Your task to perform on an android device: Go to ESPN.com Image 0: 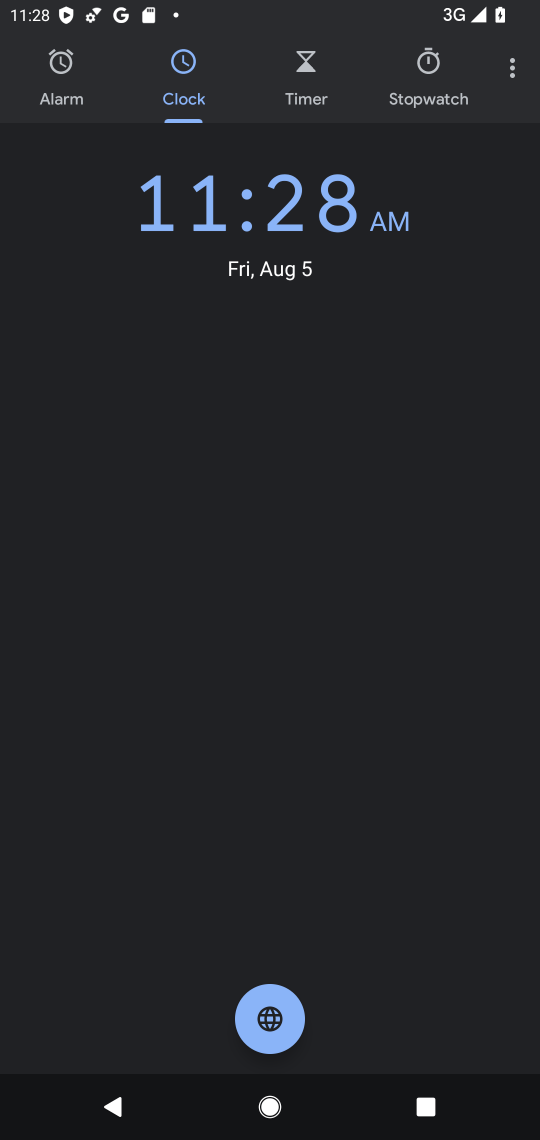
Step 0: press home button
Your task to perform on an android device: Go to ESPN.com Image 1: 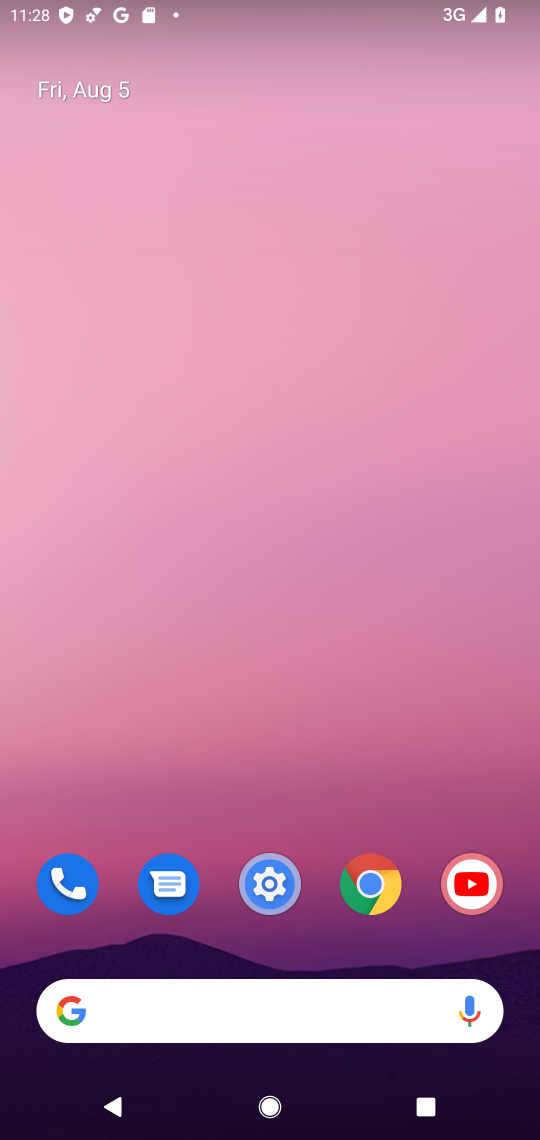
Step 1: click (356, 886)
Your task to perform on an android device: Go to ESPN.com Image 2: 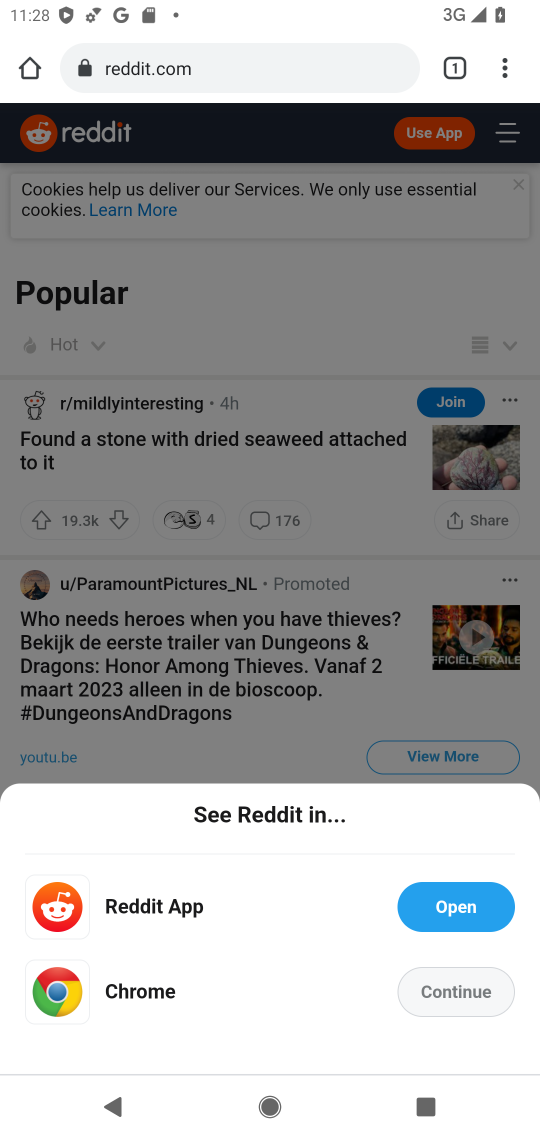
Step 2: click (214, 70)
Your task to perform on an android device: Go to ESPN.com Image 3: 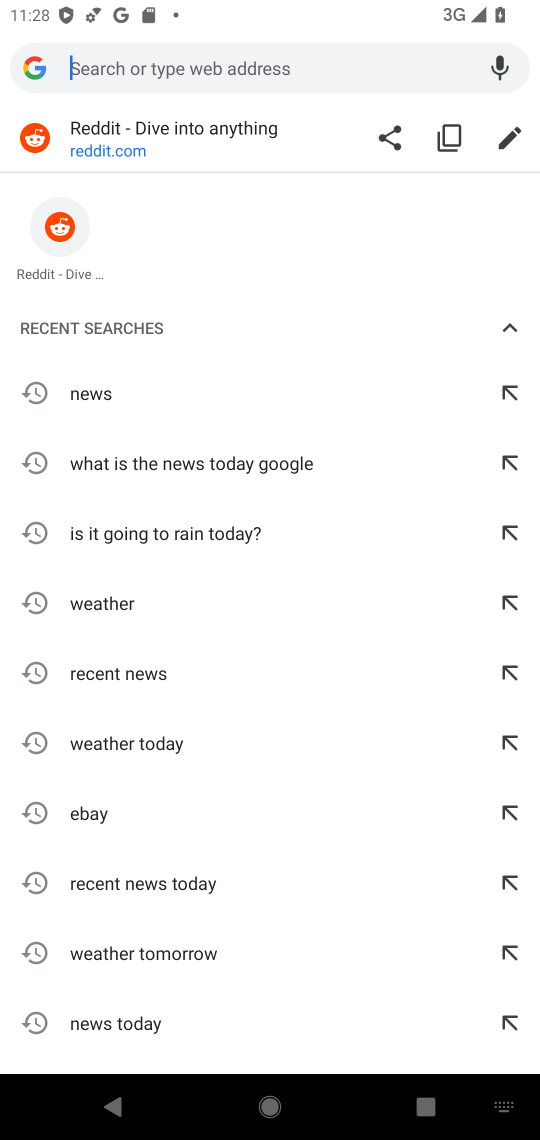
Step 3: type "espn.com"
Your task to perform on an android device: Go to ESPN.com Image 4: 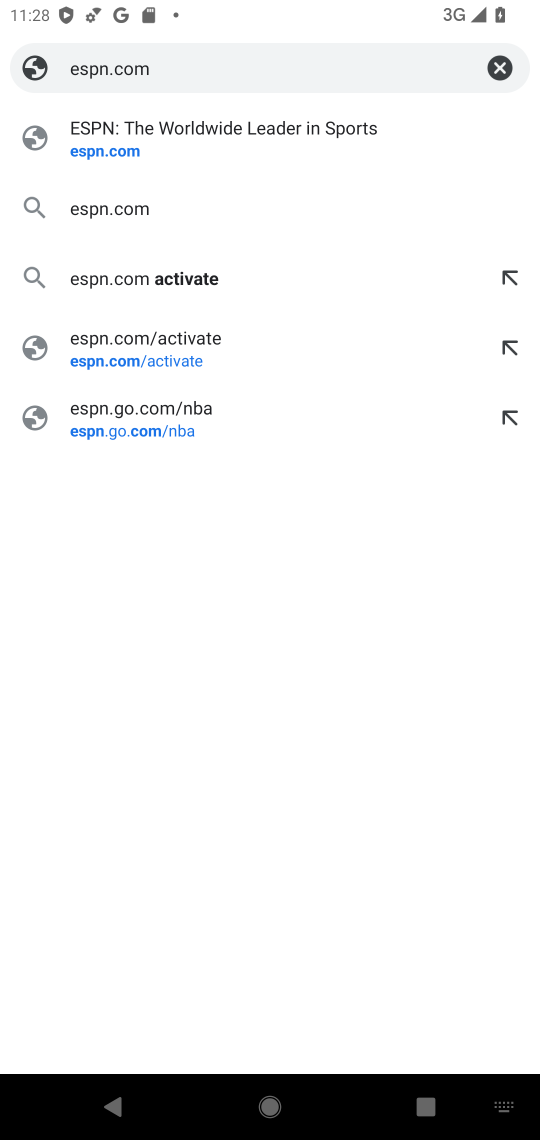
Step 4: click (183, 139)
Your task to perform on an android device: Go to ESPN.com Image 5: 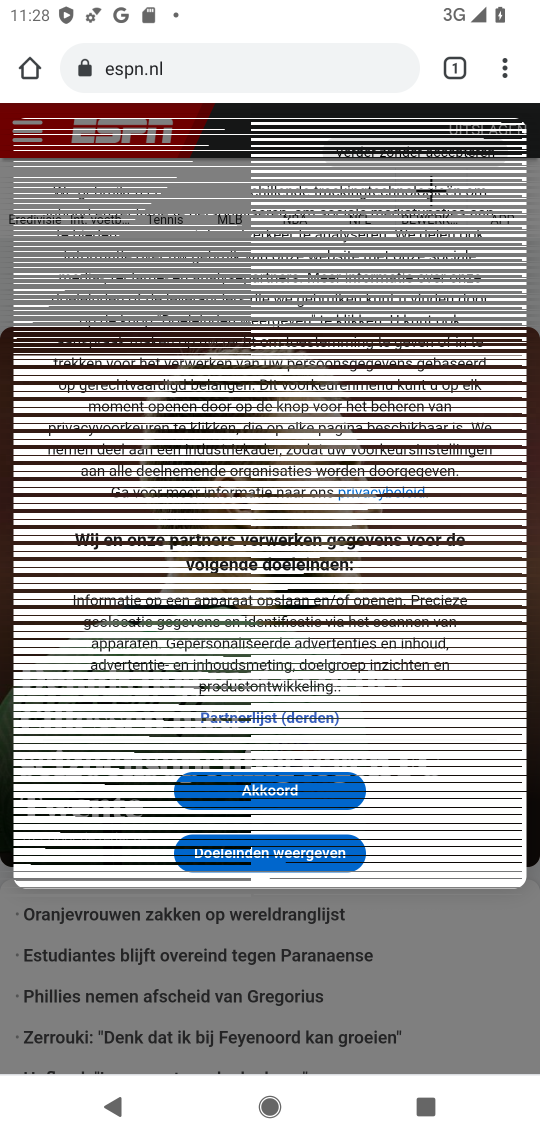
Step 5: task complete